Your task to perform on an android device: Open location settings Image 0: 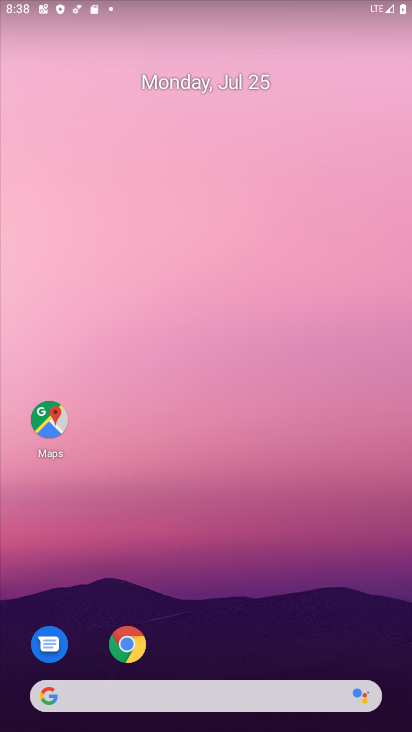
Step 0: drag from (299, 565) to (295, 118)
Your task to perform on an android device: Open location settings Image 1: 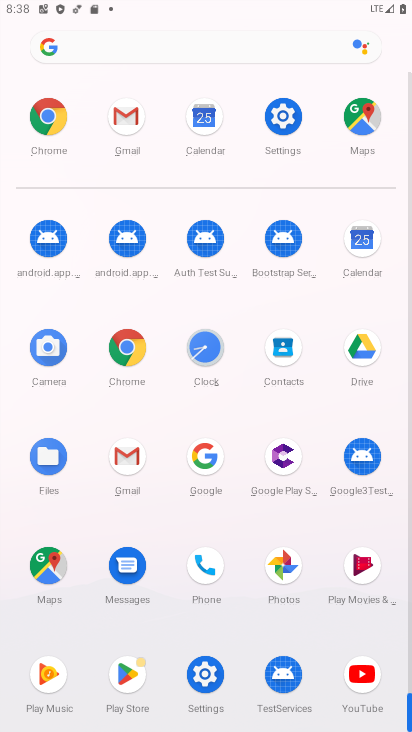
Step 1: click (215, 669)
Your task to perform on an android device: Open location settings Image 2: 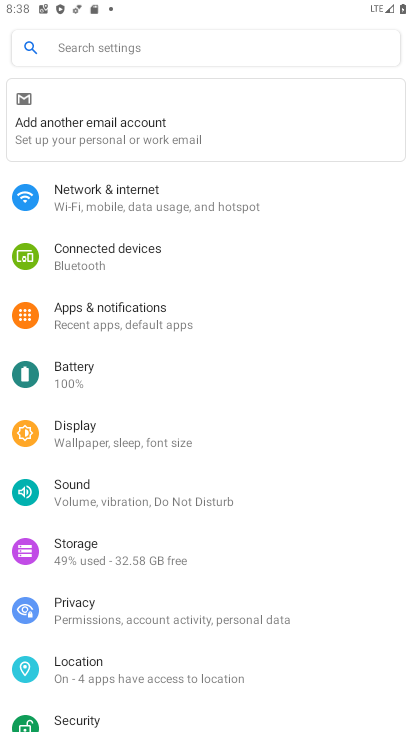
Step 2: click (119, 669)
Your task to perform on an android device: Open location settings Image 3: 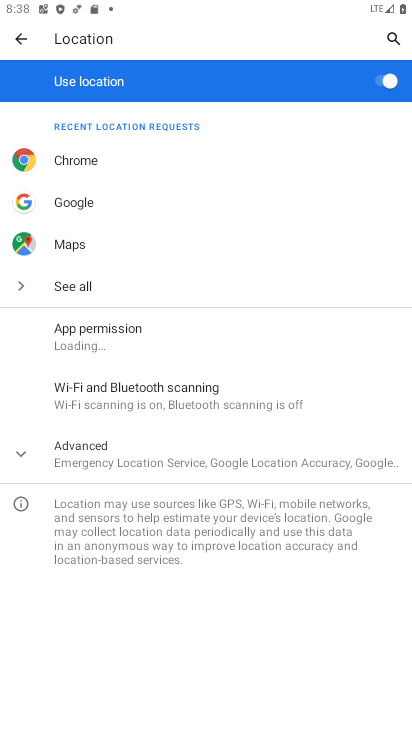
Step 3: click (144, 462)
Your task to perform on an android device: Open location settings Image 4: 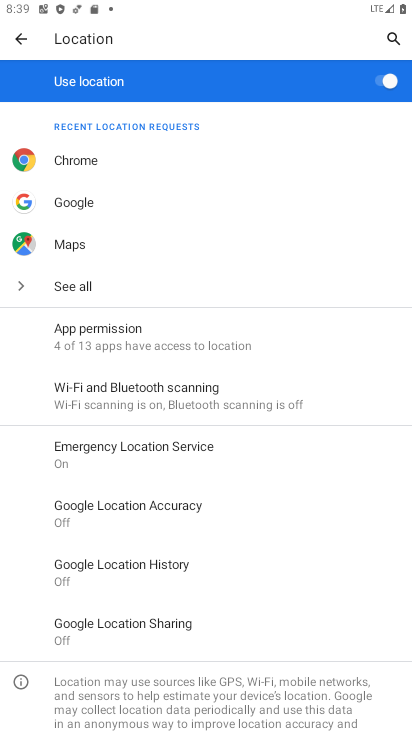
Step 4: task complete